Your task to perform on an android device: toggle pop-ups in chrome Image 0: 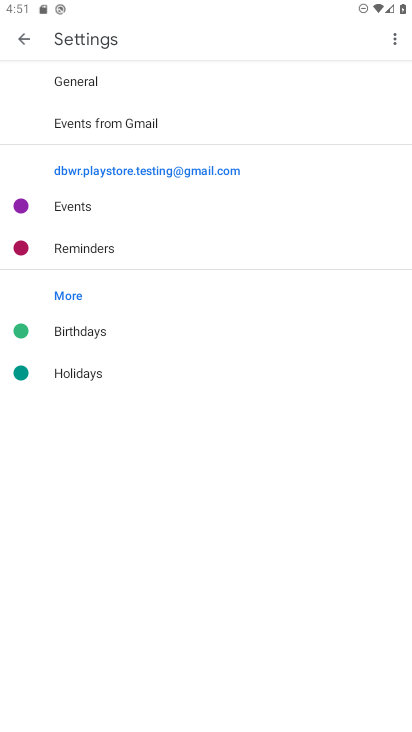
Step 0: press home button
Your task to perform on an android device: toggle pop-ups in chrome Image 1: 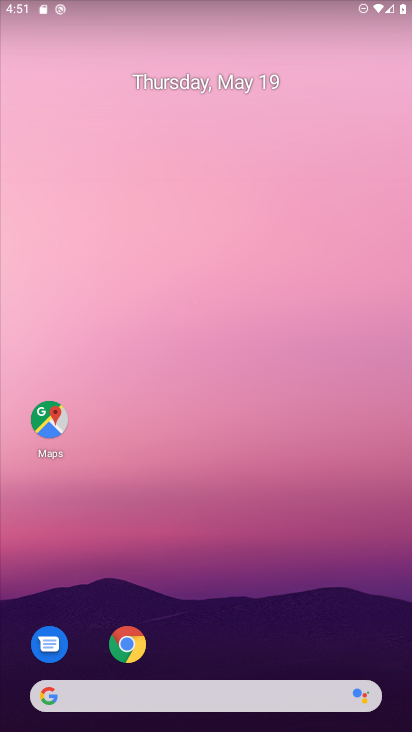
Step 1: click (138, 656)
Your task to perform on an android device: toggle pop-ups in chrome Image 2: 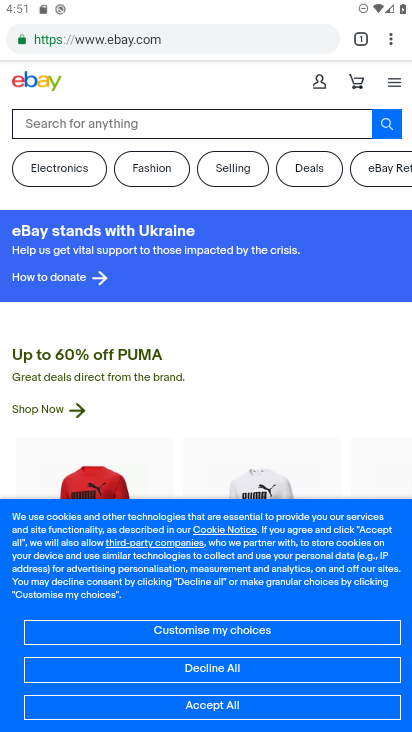
Step 2: drag from (391, 37) to (284, 464)
Your task to perform on an android device: toggle pop-ups in chrome Image 3: 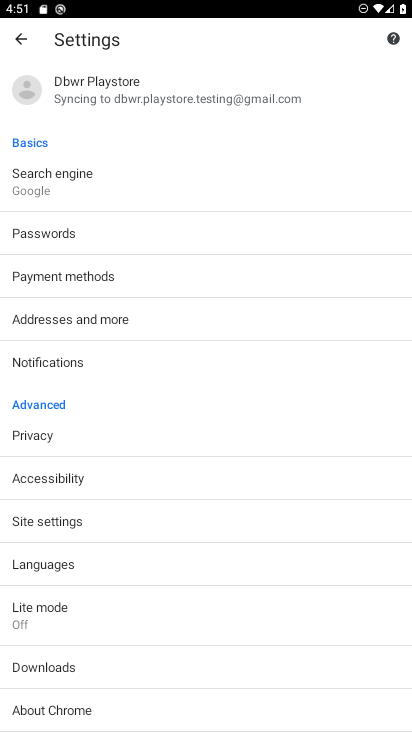
Step 3: click (94, 523)
Your task to perform on an android device: toggle pop-ups in chrome Image 4: 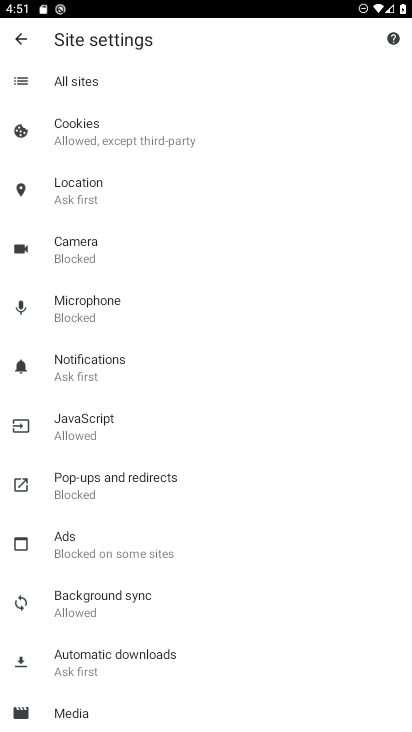
Step 4: click (124, 490)
Your task to perform on an android device: toggle pop-ups in chrome Image 5: 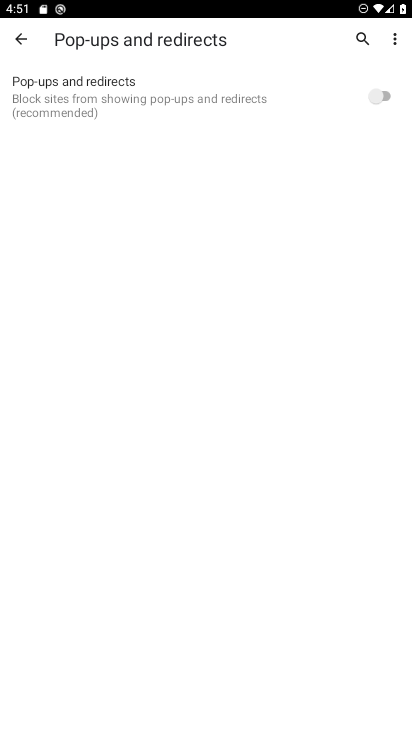
Step 5: click (380, 91)
Your task to perform on an android device: toggle pop-ups in chrome Image 6: 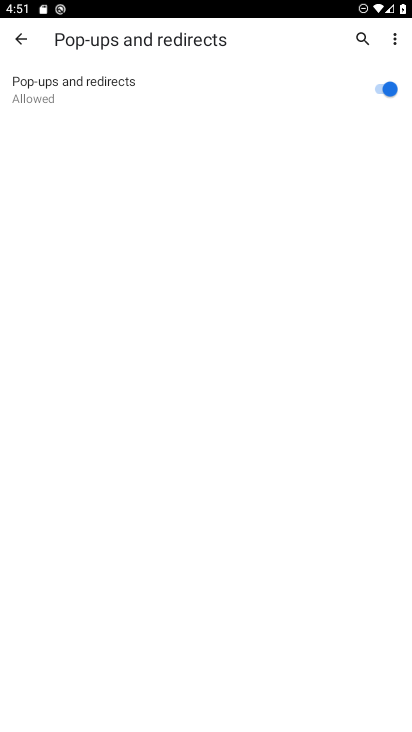
Step 6: task complete